Your task to perform on an android device: turn off location history Image 0: 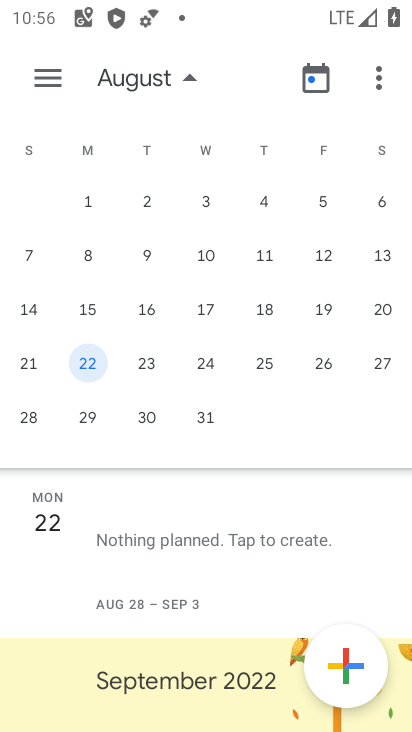
Step 0: press back button
Your task to perform on an android device: turn off location history Image 1: 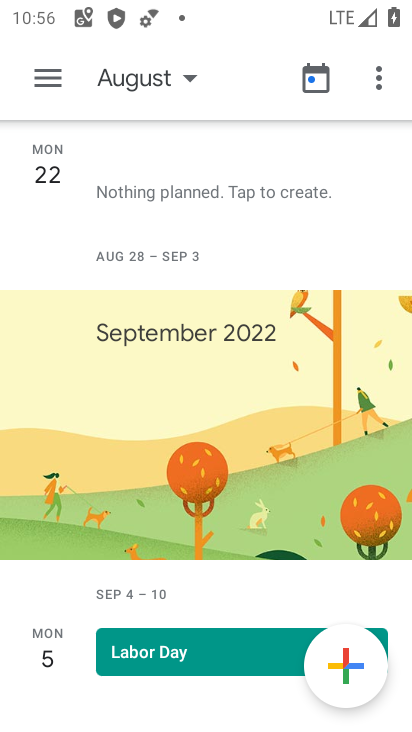
Step 1: press back button
Your task to perform on an android device: turn off location history Image 2: 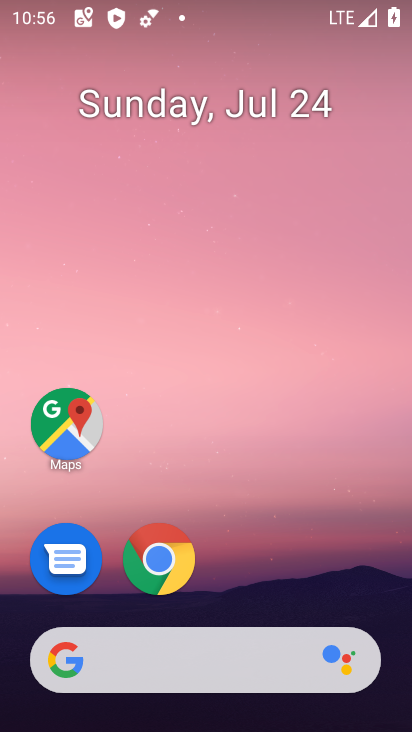
Step 2: drag from (237, 590) to (289, 70)
Your task to perform on an android device: turn off location history Image 3: 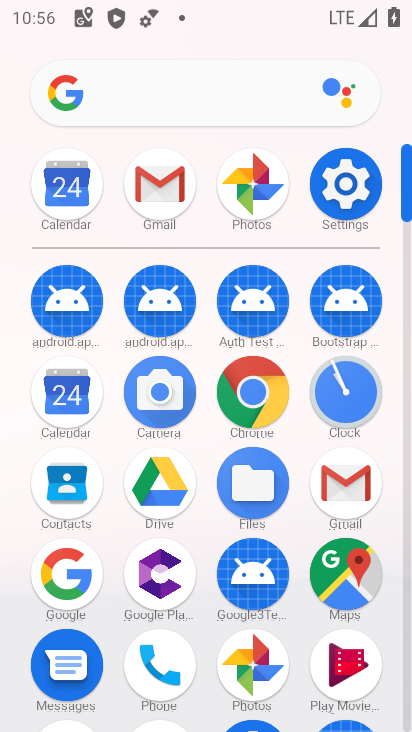
Step 3: click (336, 184)
Your task to perform on an android device: turn off location history Image 4: 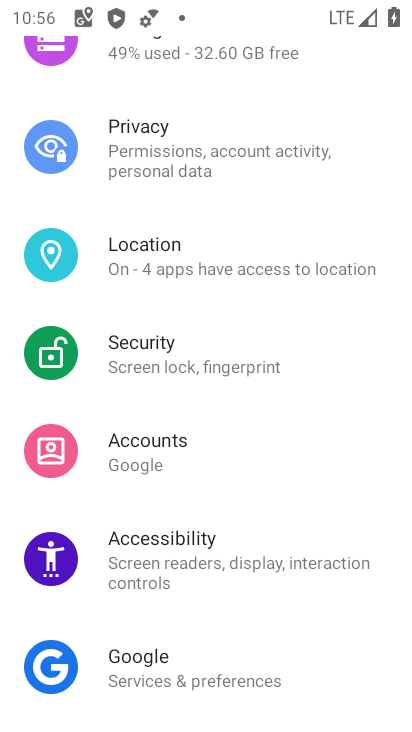
Step 4: click (191, 267)
Your task to perform on an android device: turn off location history Image 5: 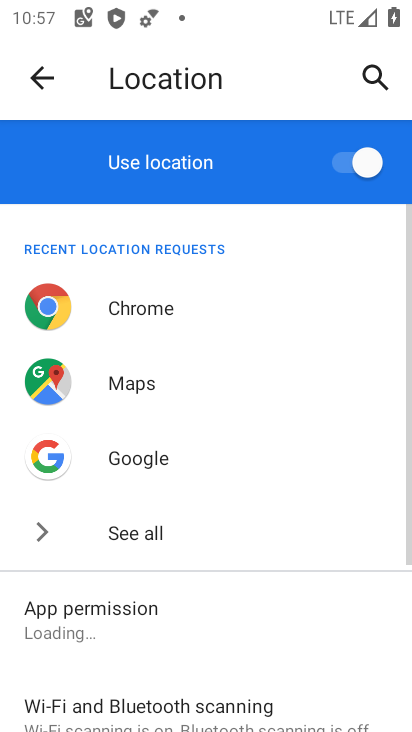
Step 5: drag from (211, 639) to (282, 83)
Your task to perform on an android device: turn off location history Image 6: 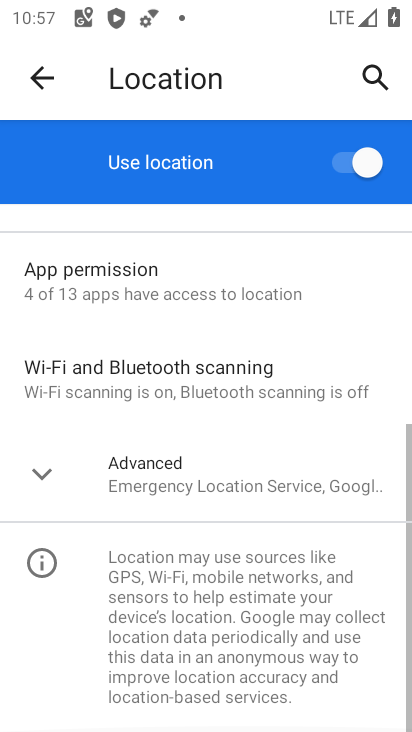
Step 6: click (226, 468)
Your task to perform on an android device: turn off location history Image 7: 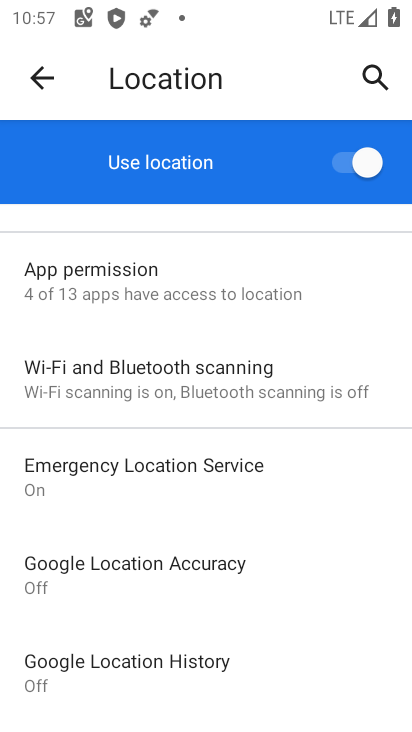
Step 7: click (132, 682)
Your task to perform on an android device: turn off location history Image 8: 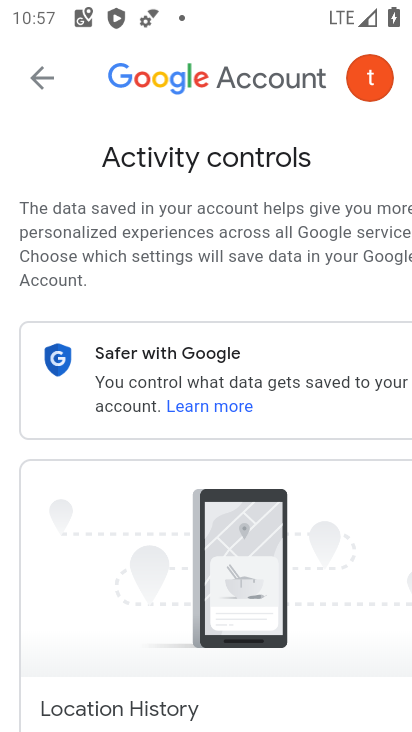
Step 8: task complete